Your task to perform on an android device: change alarm snooze length Image 0: 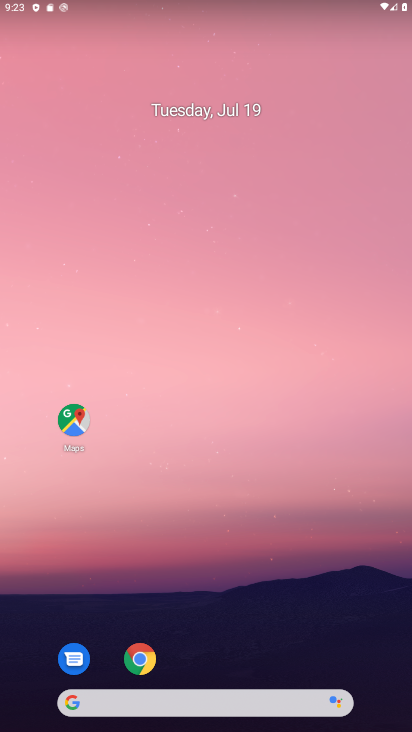
Step 0: drag from (323, 665) to (287, 216)
Your task to perform on an android device: change alarm snooze length Image 1: 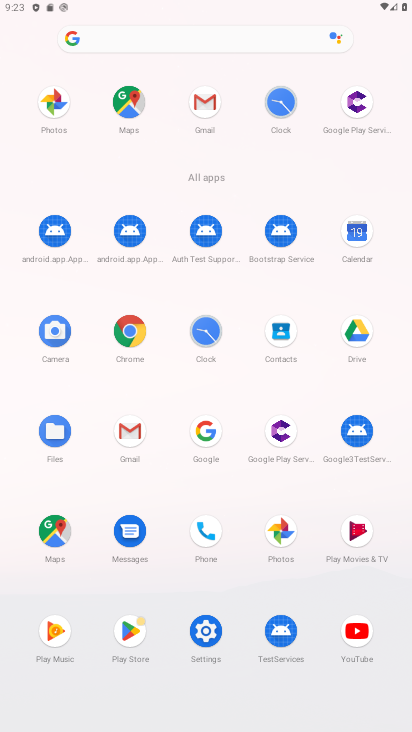
Step 1: click (279, 105)
Your task to perform on an android device: change alarm snooze length Image 2: 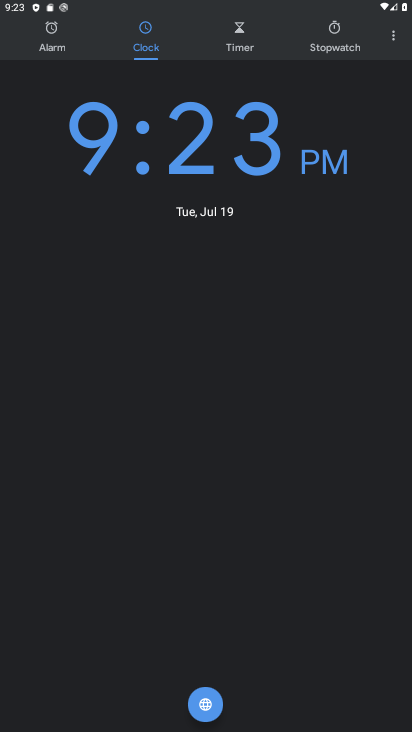
Step 2: click (390, 46)
Your task to perform on an android device: change alarm snooze length Image 3: 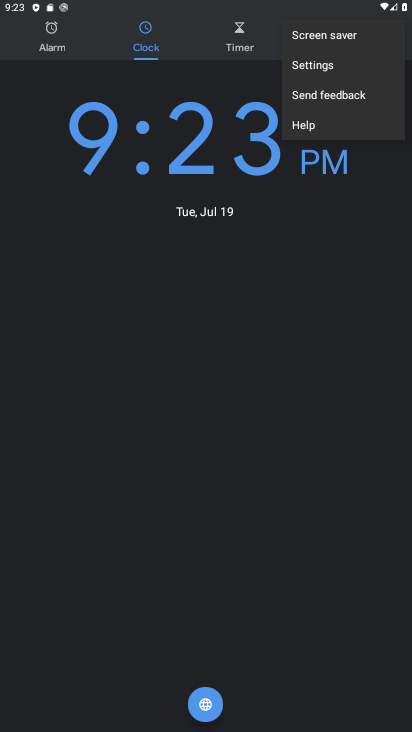
Step 3: click (315, 67)
Your task to perform on an android device: change alarm snooze length Image 4: 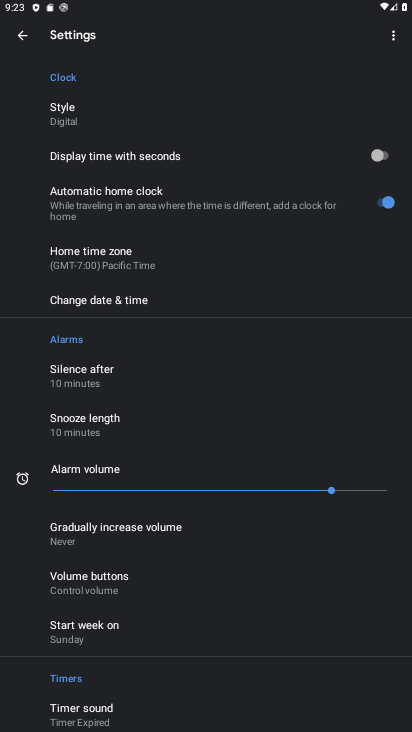
Step 4: drag from (147, 609) to (156, 196)
Your task to perform on an android device: change alarm snooze length Image 5: 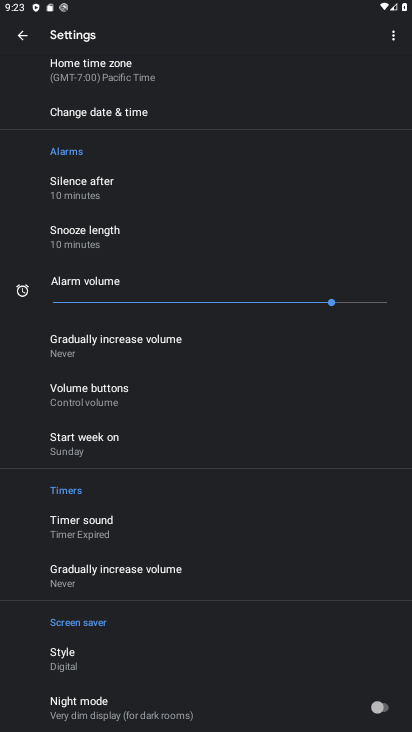
Step 5: click (99, 251)
Your task to perform on an android device: change alarm snooze length Image 6: 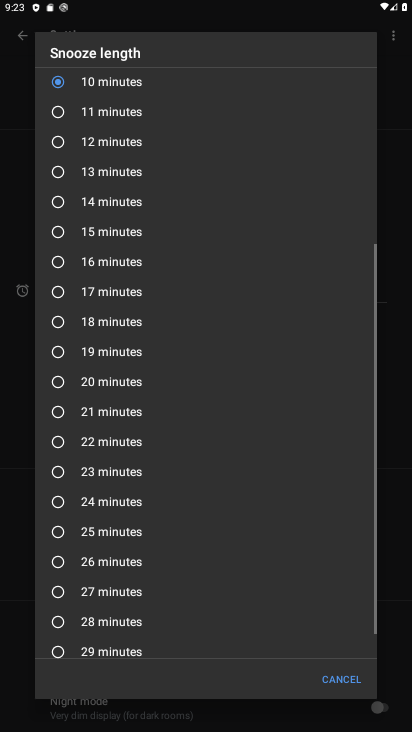
Step 6: click (101, 267)
Your task to perform on an android device: change alarm snooze length Image 7: 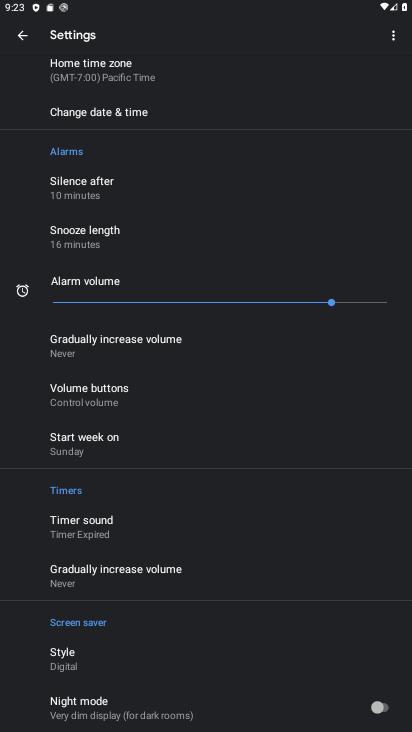
Step 7: task complete